Your task to perform on an android device: see tabs open on other devices in the chrome app Image 0: 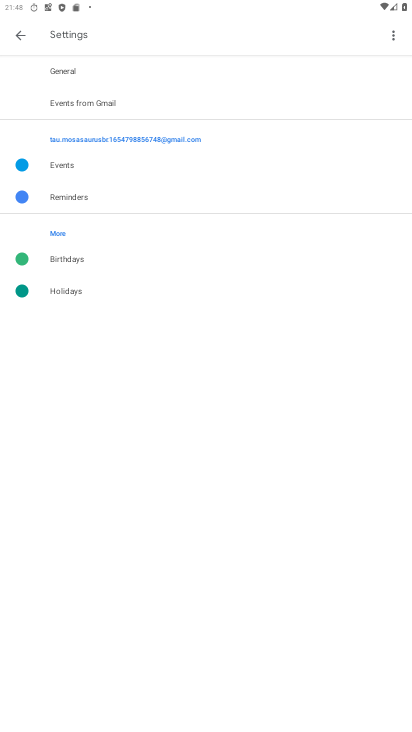
Step 0: press home button
Your task to perform on an android device: see tabs open on other devices in the chrome app Image 1: 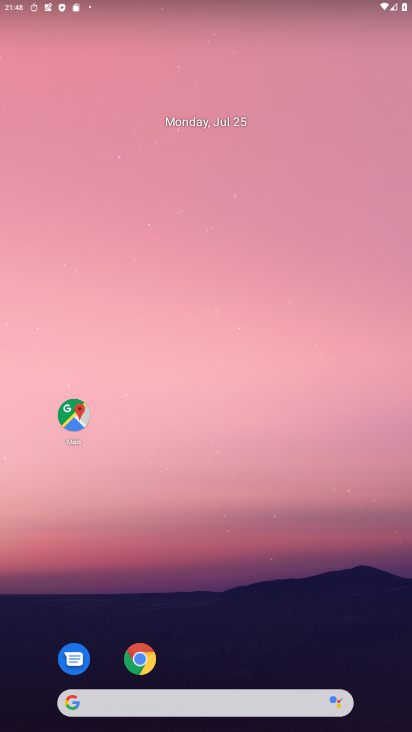
Step 1: click (150, 649)
Your task to perform on an android device: see tabs open on other devices in the chrome app Image 2: 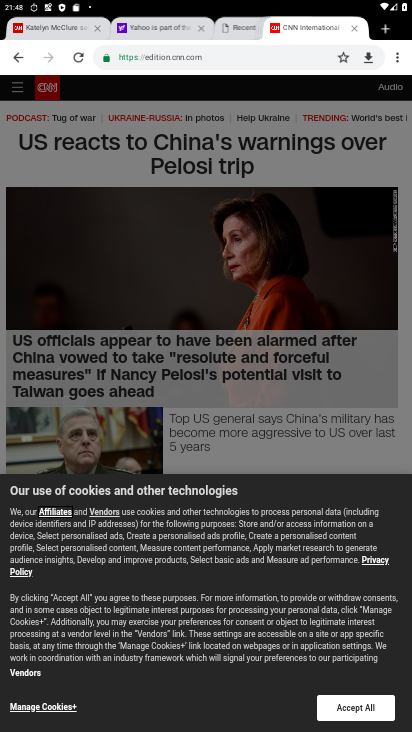
Step 2: click (394, 59)
Your task to perform on an android device: see tabs open on other devices in the chrome app Image 3: 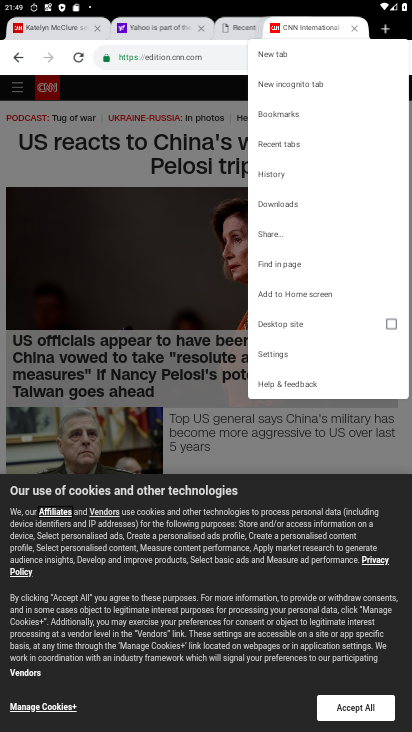
Step 3: click (297, 140)
Your task to perform on an android device: see tabs open on other devices in the chrome app Image 4: 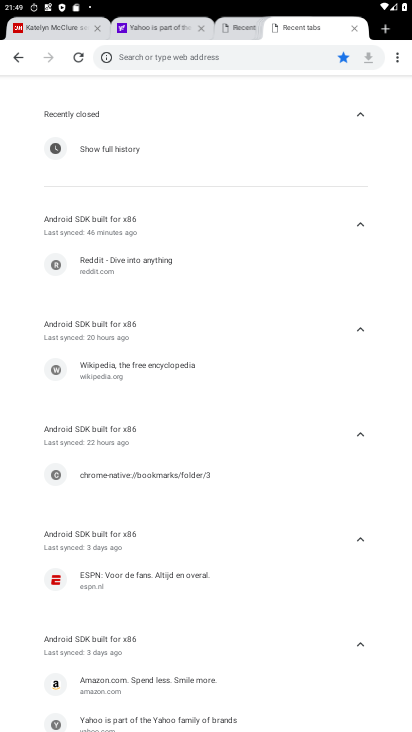
Step 4: task complete